Your task to perform on an android device: Is it going to rain today? Image 0: 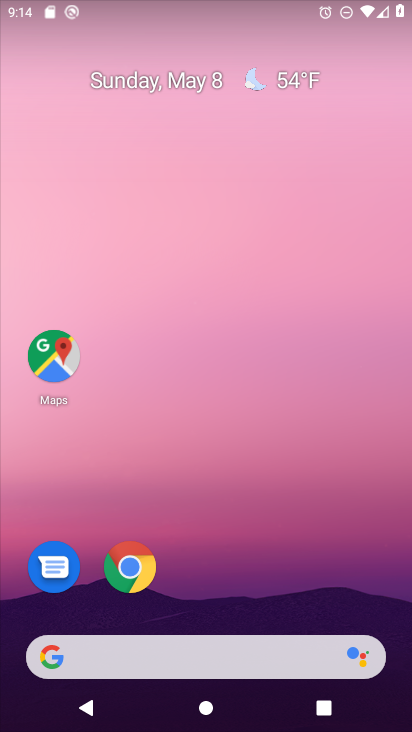
Step 0: drag from (274, 566) to (178, 36)
Your task to perform on an android device: Is it going to rain today? Image 1: 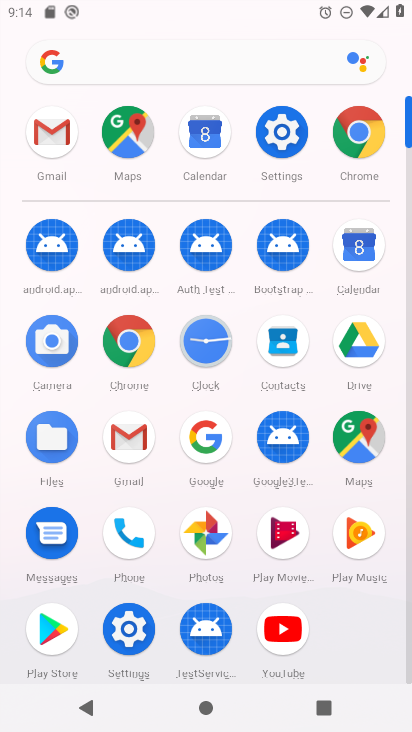
Step 1: press home button
Your task to perform on an android device: Is it going to rain today? Image 2: 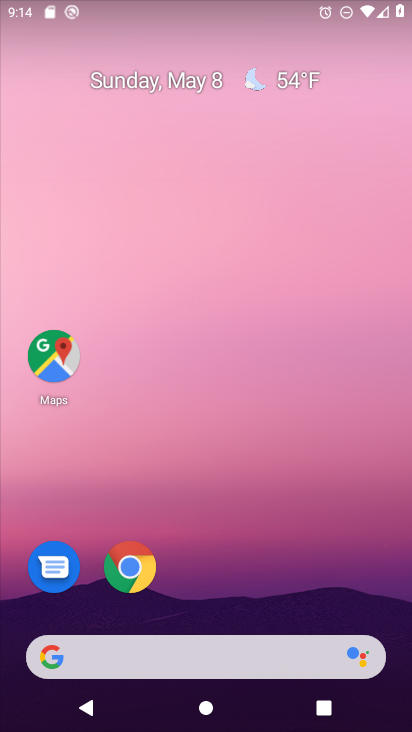
Step 2: click (245, 79)
Your task to perform on an android device: Is it going to rain today? Image 3: 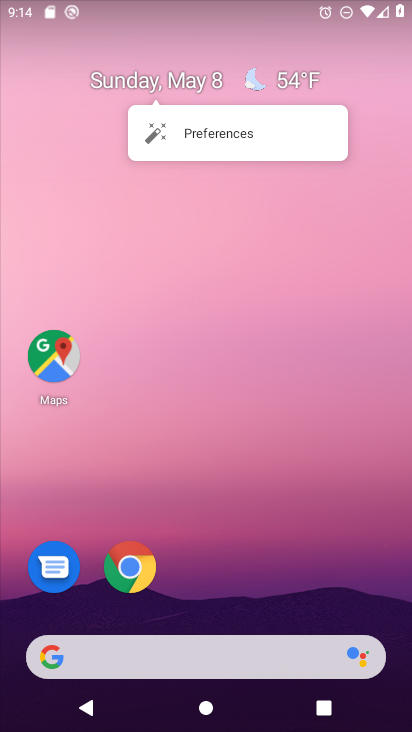
Step 3: click (245, 77)
Your task to perform on an android device: Is it going to rain today? Image 4: 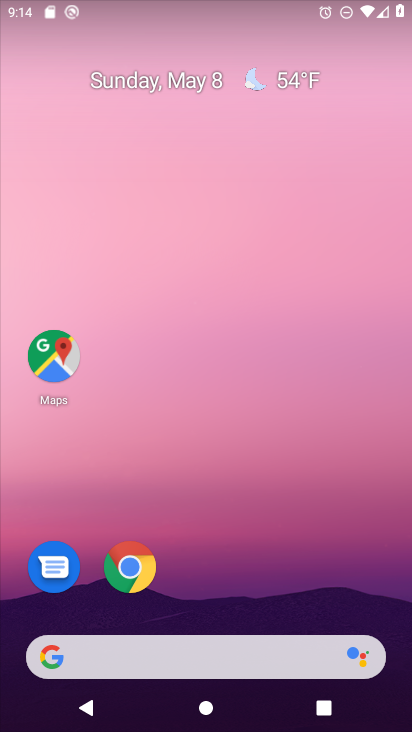
Step 4: click (306, 81)
Your task to perform on an android device: Is it going to rain today? Image 5: 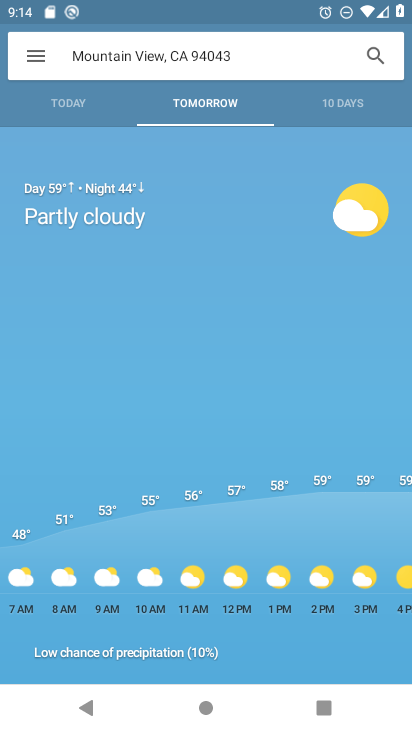
Step 5: task complete